Your task to perform on an android device: What is the recent news? Image 0: 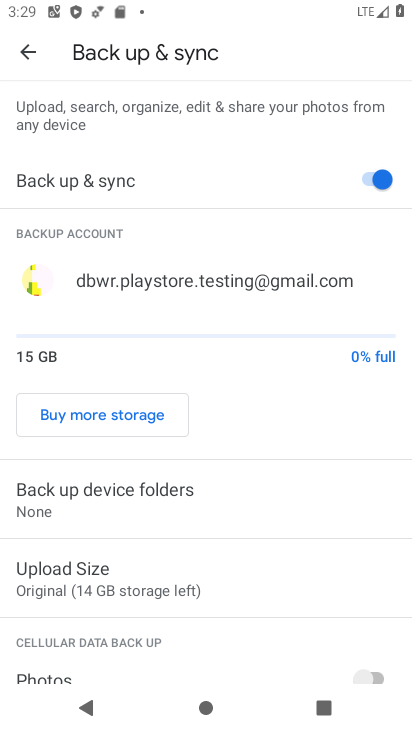
Step 0: press home button
Your task to perform on an android device: What is the recent news? Image 1: 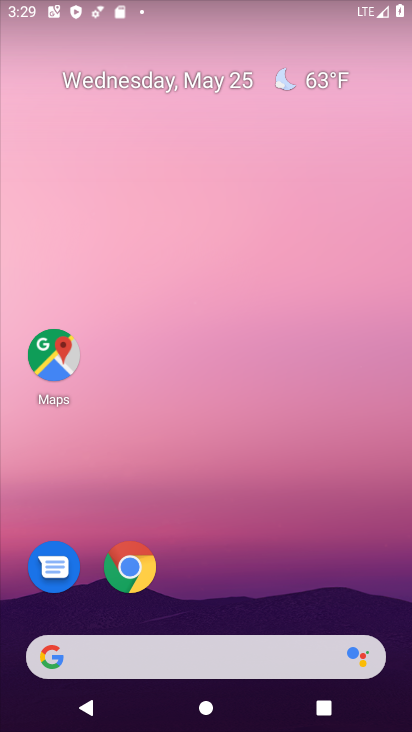
Step 1: drag from (204, 583) to (195, 63)
Your task to perform on an android device: What is the recent news? Image 2: 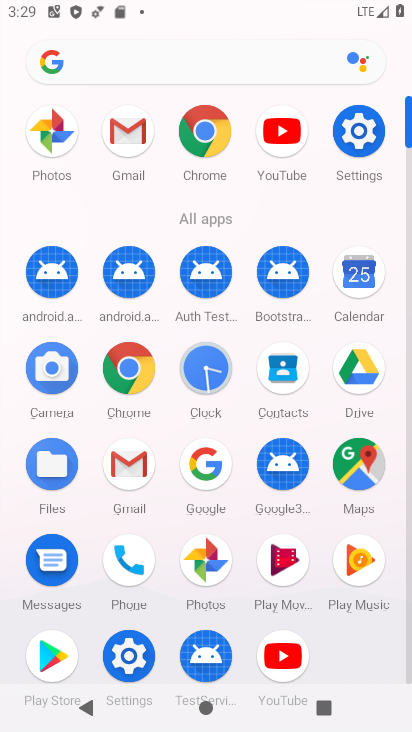
Step 2: click (128, 364)
Your task to perform on an android device: What is the recent news? Image 3: 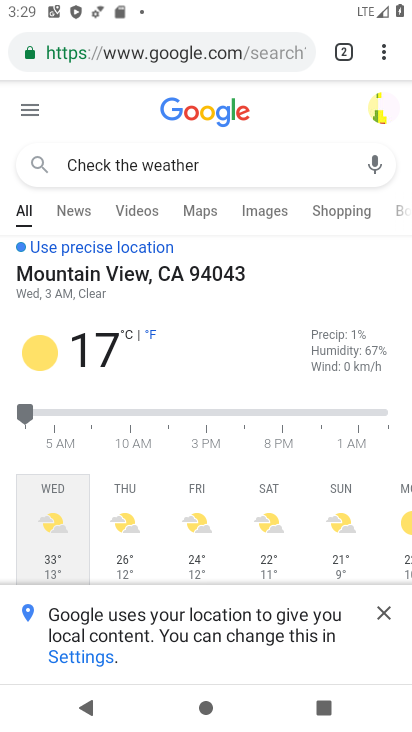
Step 3: drag from (243, 459) to (249, 261)
Your task to perform on an android device: What is the recent news? Image 4: 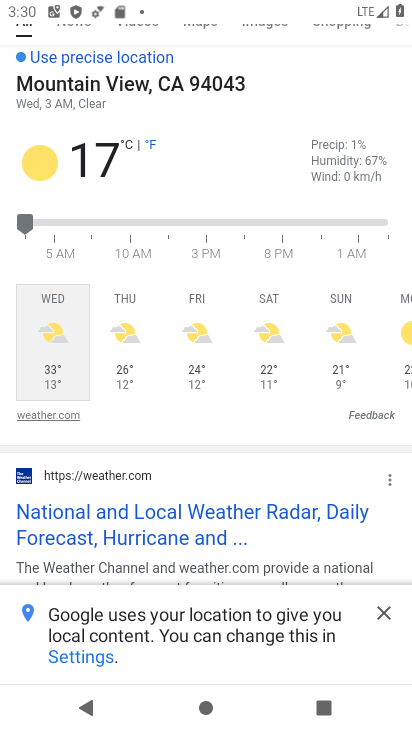
Step 4: drag from (269, 122) to (240, 504)
Your task to perform on an android device: What is the recent news? Image 5: 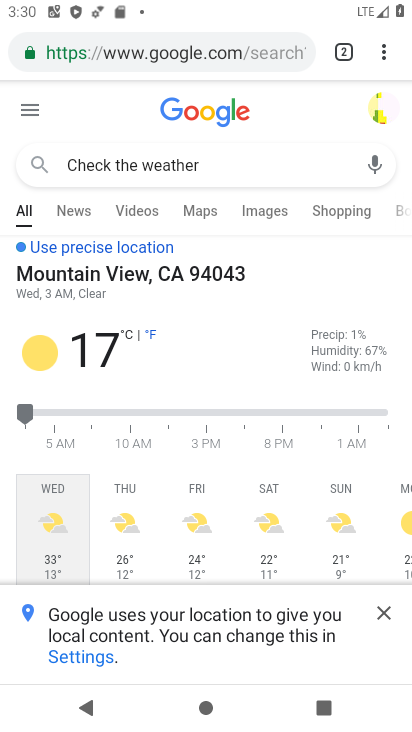
Step 5: click (216, 54)
Your task to perform on an android device: What is the recent news? Image 6: 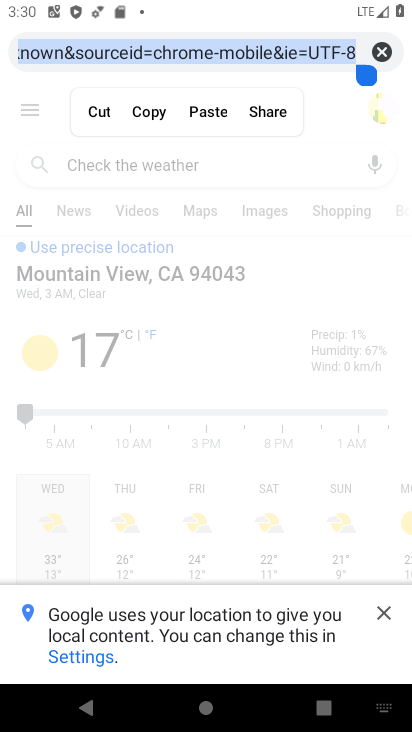
Step 6: click (388, 53)
Your task to perform on an android device: What is the recent news? Image 7: 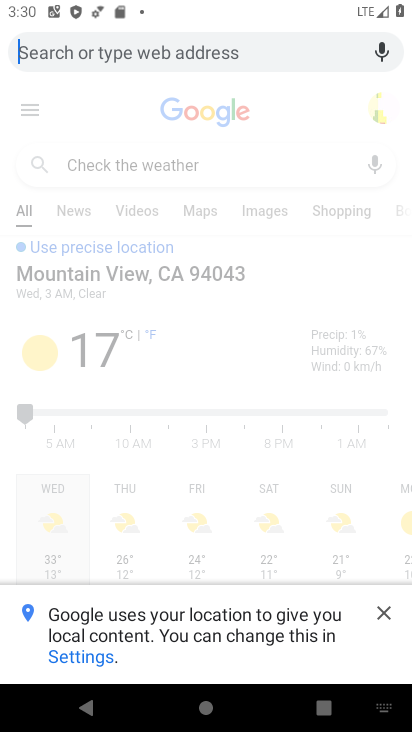
Step 7: type "What is the recent news?"
Your task to perform on an android device: What is the recent news? Image 8: 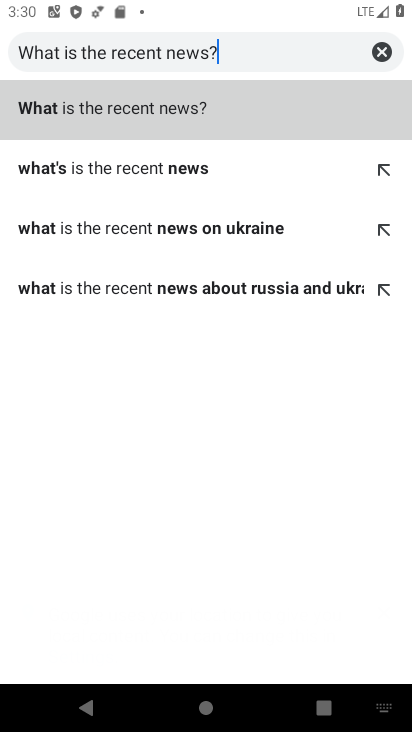
Step 8: click (150, 103)
Your task to perform on an android device: What is the recent news? Image 9: 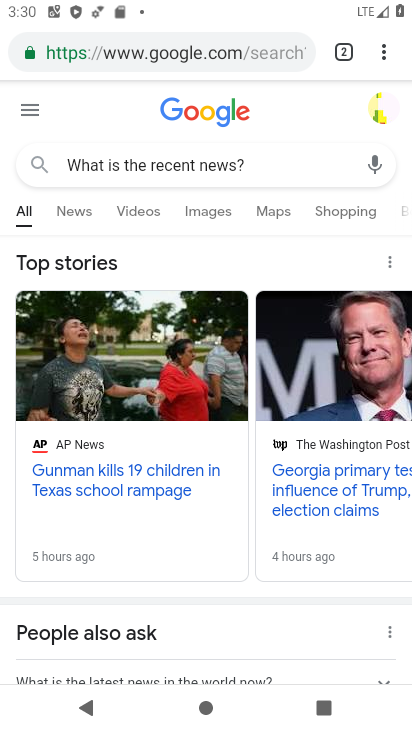
Step 9: click (77, 209)
Your task to perform on an android device: What is the recent news? Image 10: 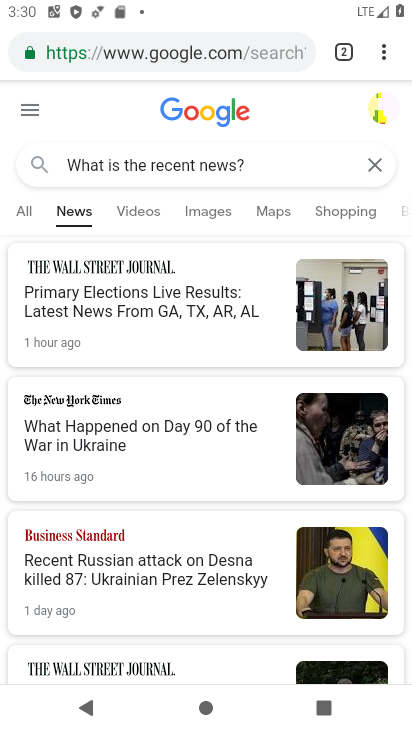
Step 10: task complete